Your task to perform on an android device: Go to Maps Image 0: 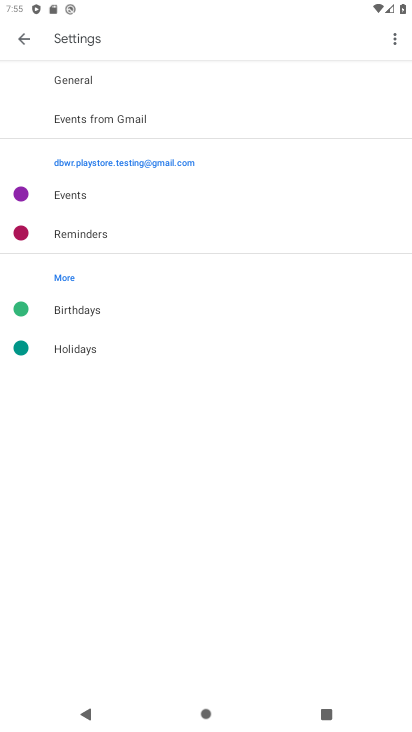
Step 0: press home button
Your task to perform on an android device: Go to Maps Image 1: 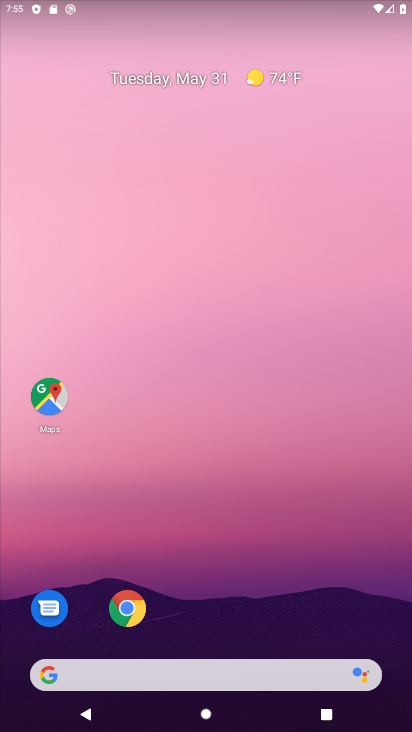
Step 1: drag from (183, 647) to (95, 81)
Your task to perform on an android device: Go to Maps Image 2: 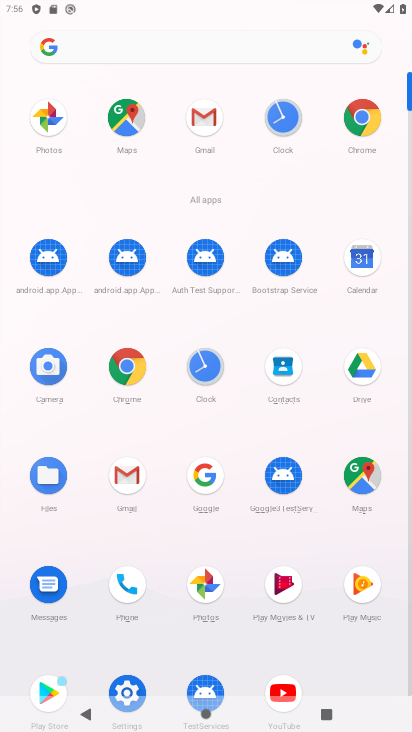
Step 2: click (368, 477)
Your task to perform on an android device: Go to Maps Image 3: 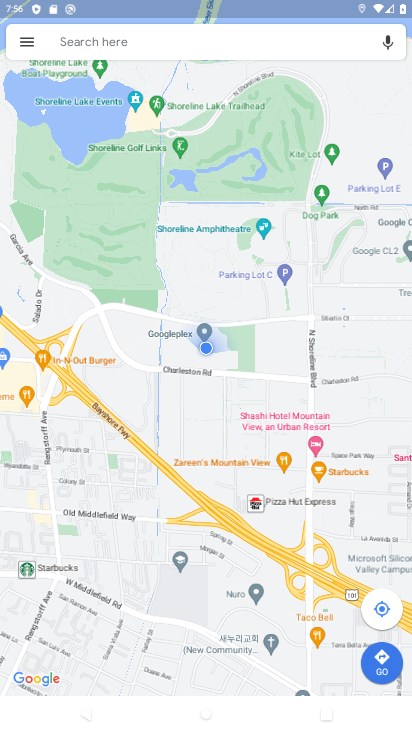
Step 3: task complete